Your task to perform on an android device: turn off javascript in the chrome app Image 0: 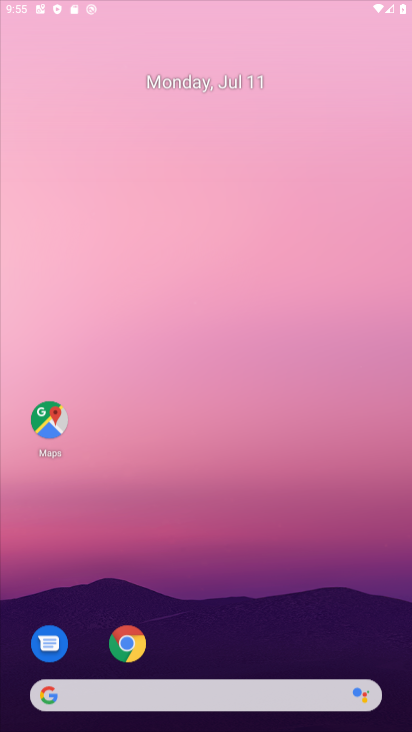
Step 0: press home button
Your task to perform on an android device: turn off javascript in the chrome app Image 1: 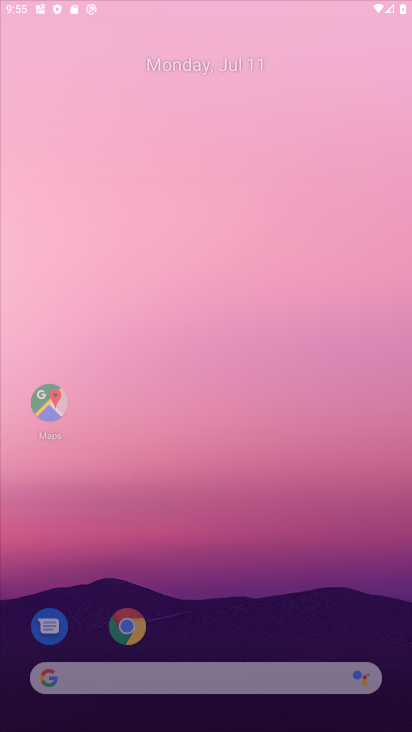
Step 1: drag from (213, 661) to (265, 77)
Your task to perform on an android device: turn off javascript in the chrome app Image 2: 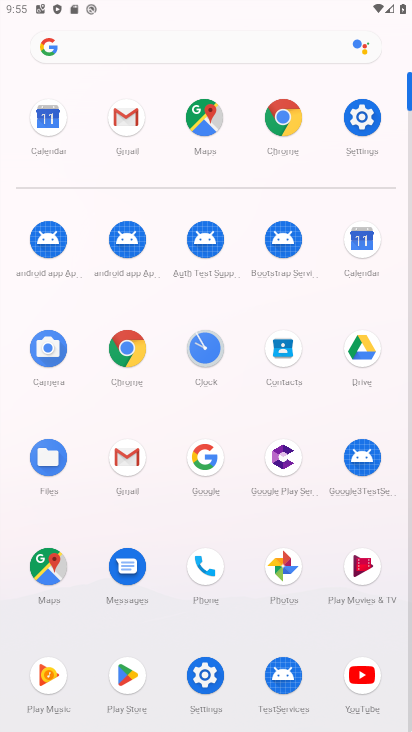
Step 2: click (282, 109)
Your task to perform on an android device: turn off javascript in the chrome app Image 3: 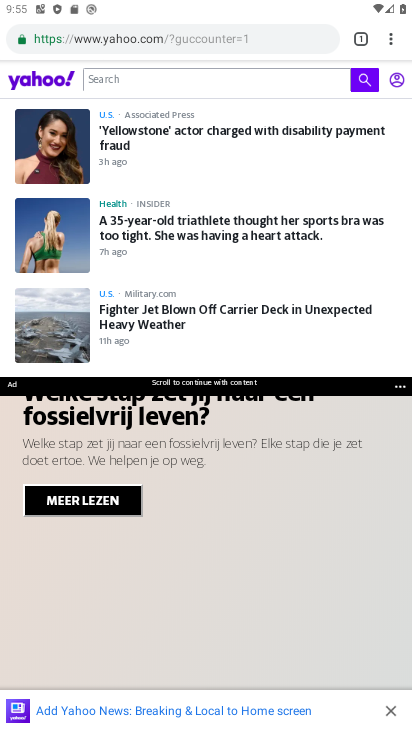
Step 3: click (390, 43)
Your task to perform on an android device: turn off javascript in the chrome app Image 4: 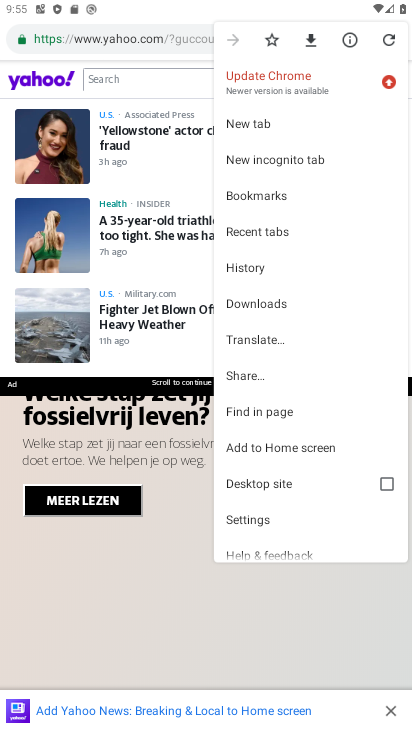
Step 4: click (274, 518)
Your task to perform on an android device: turn off javascript in the chrome app Image 5: 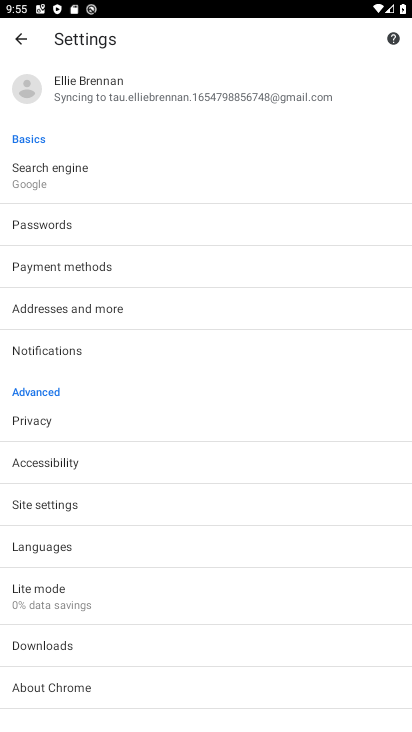
Step 5: click (90, 509)
Your task to perform on an android device: turn off javascript in the chrome app Image 6: 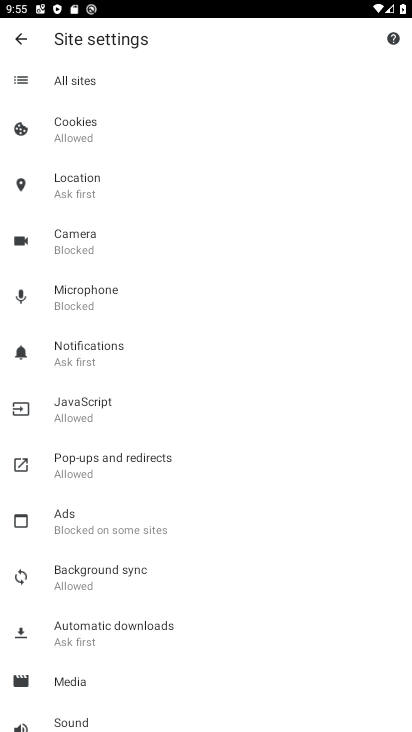
Step 6: click (114, 412)
Your task to perform on an android device: turn off javascript in the chrome app Image 7: 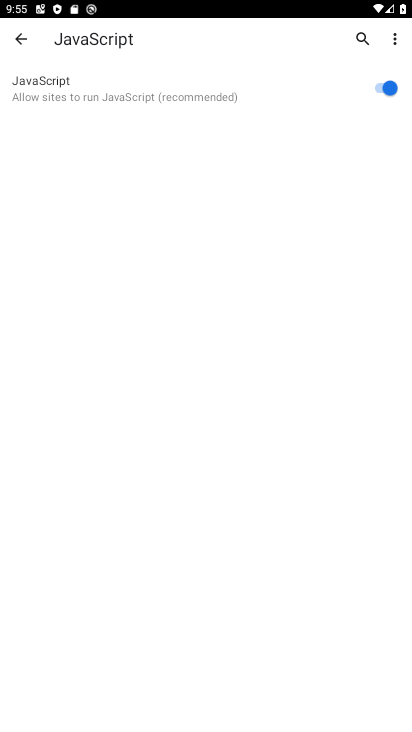
Step 7: click (381, 87)
Your task to perform on an android device: turn off javascript in the chrome app Image 8: 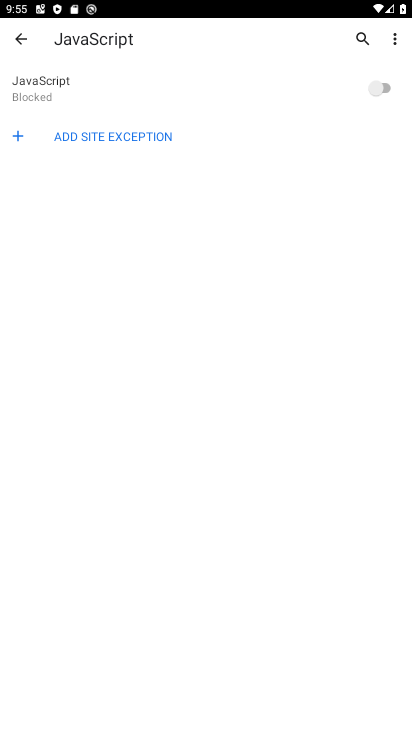
Step 8: task complete